Your task to perform on an android device: Open Yahoo.com Image 0: 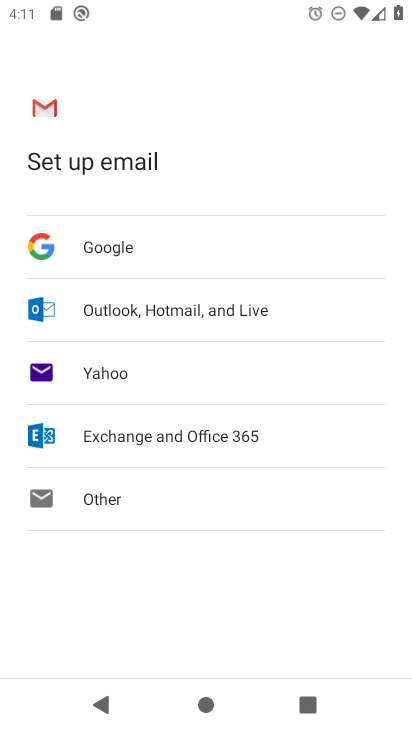
Step 0: press home button
Your task to perform on an android device: Open Yahoo.com Image 1: 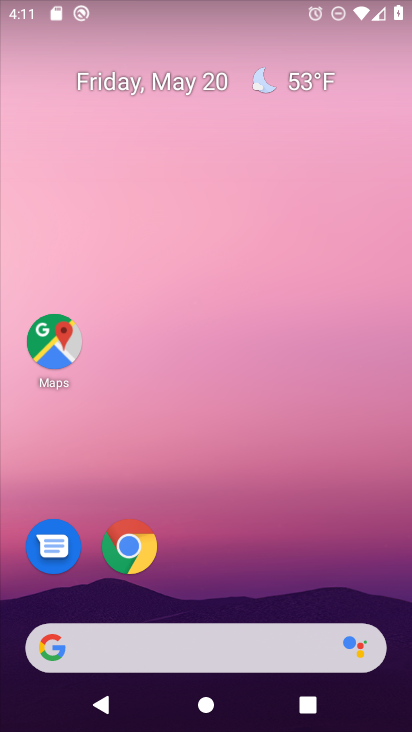
Step 1: click (129, 549)
Your task to perform on an android device: Open Yahoo.com Image 2: 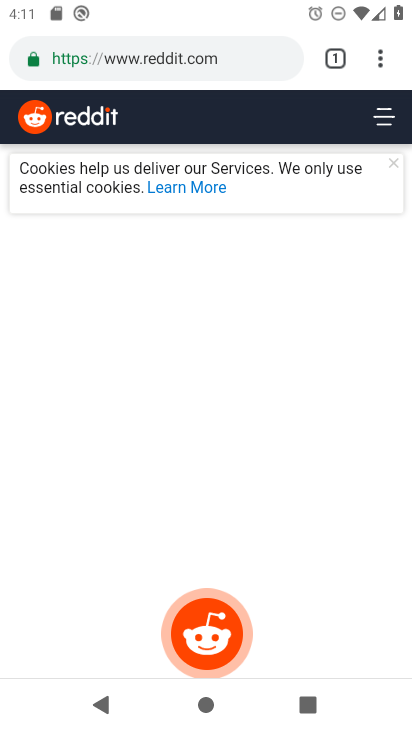
Step 2: click (173, 65)
Your task to perform on an android device: Open Yahoo.com Image 3: 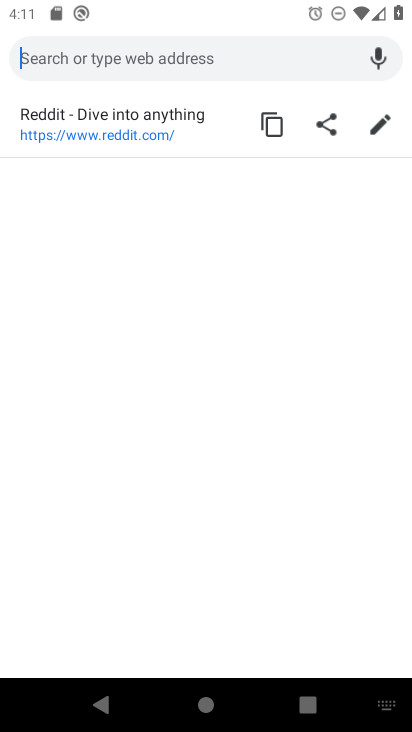
Step 3: type "yahoo.com"
Your task to perform on an android device: Open Yahoo.com Image 4: 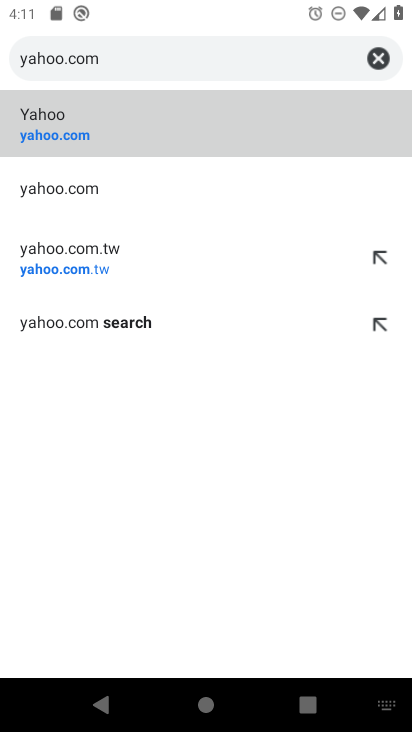
Step 4: click (46, 132)
Your task to perform on an android device: Open Yahoo.com Image 5: 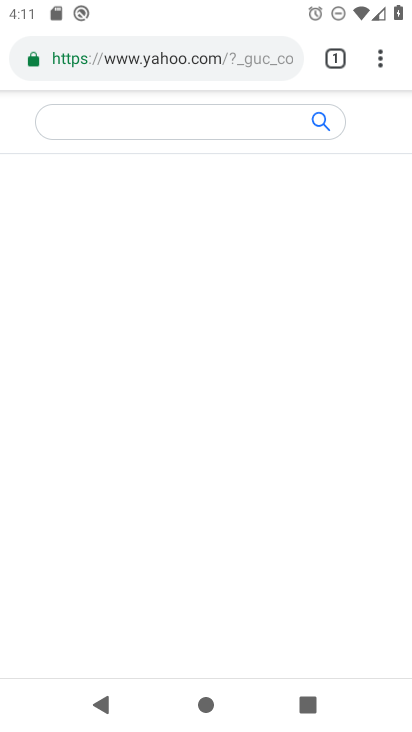
Step 5: task complete